Your task to perform on an android device: Check the weather Image 0: 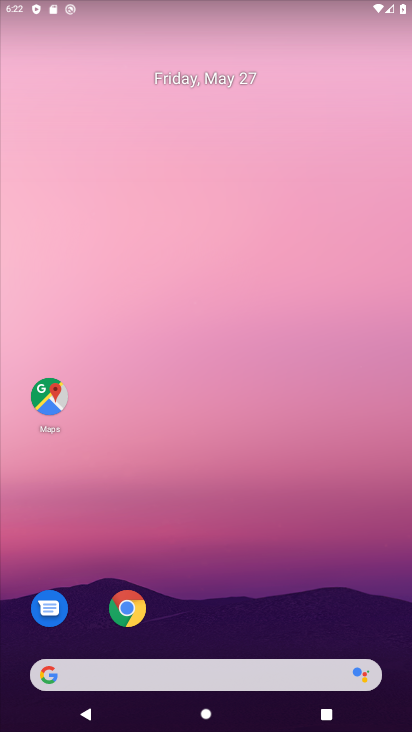
Step 0: press home button
Your task to perform on an android device: Check the weather Image 1: 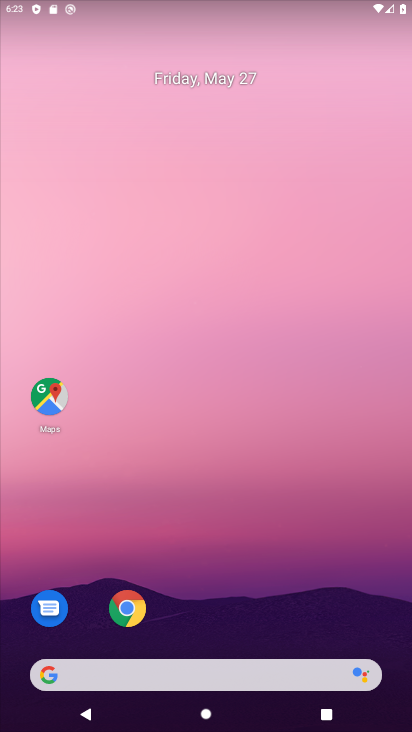
Step 1: drag from (8, 281) to (410, 313)
Your task to perform on an android device: Check the weather Image 2: 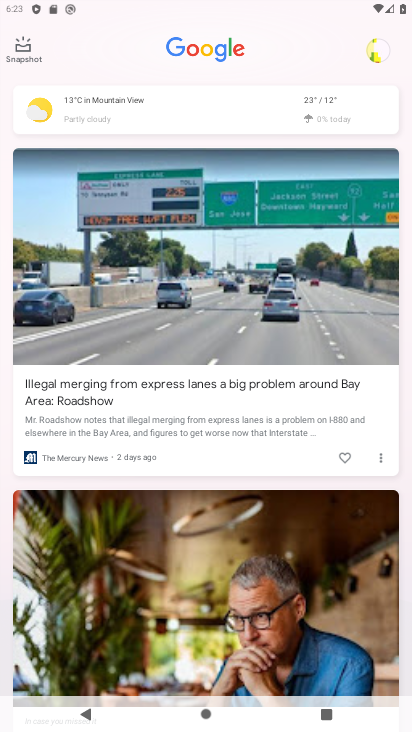
Step 2: click (293, 103)
Your task to perform on an android device: Check the weather Image 3: 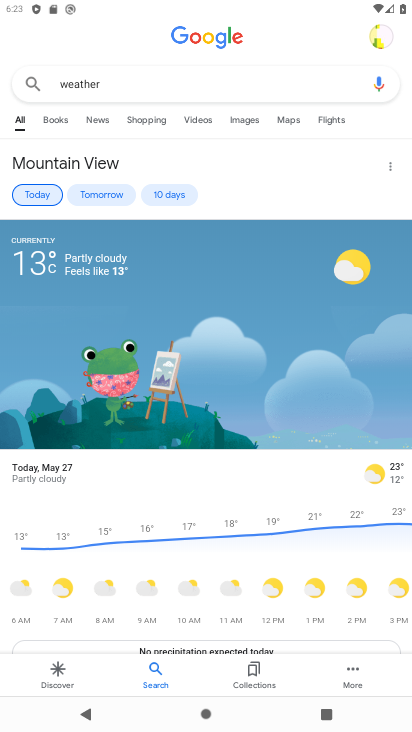
Step 3: task complete